Your task to perform on an android device: Open Yahoo.com Image 0: 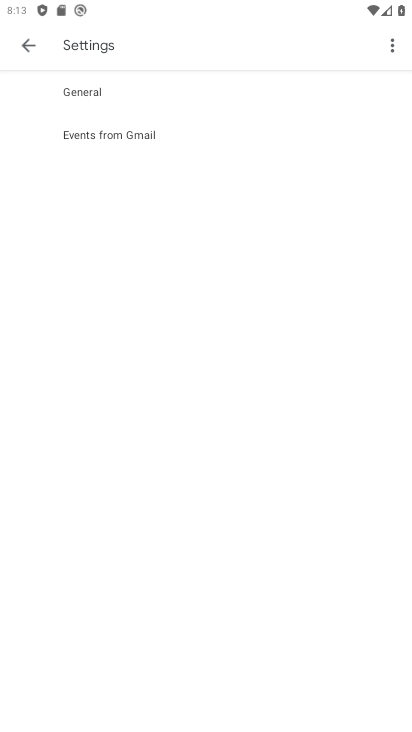
Step 0: press back button
Your task to perform on an android device: Open Yahoo.com Image 1: 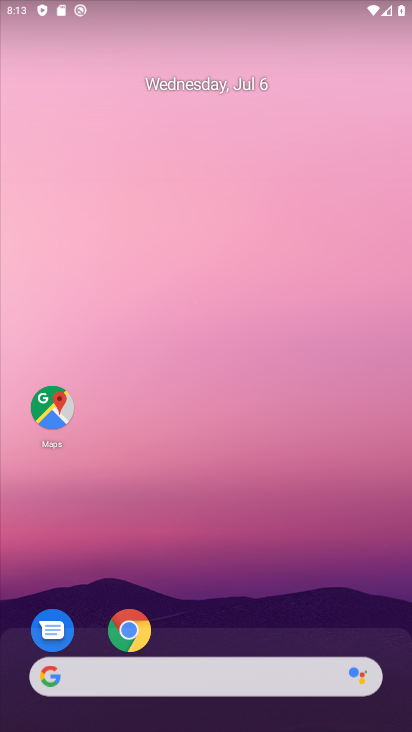
Step 1: task complete